Your task to perform on an android device: Open Google Chrome and open the bookmarks view Image 0: 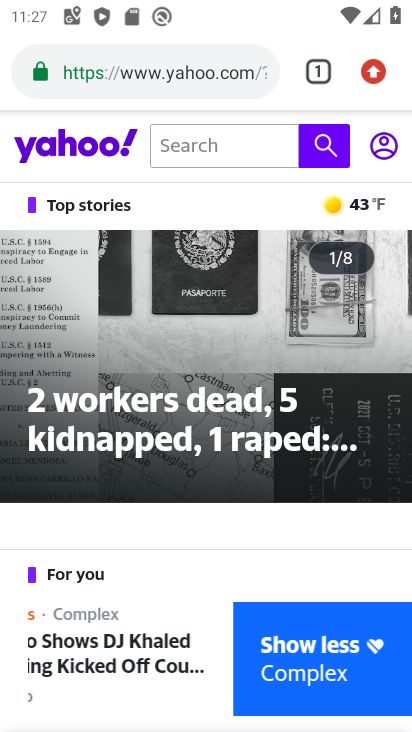
Step 0: click (369, 74)
Your task to perform on an android device: Open Google Chrome and open the bookmarks view Image 1: 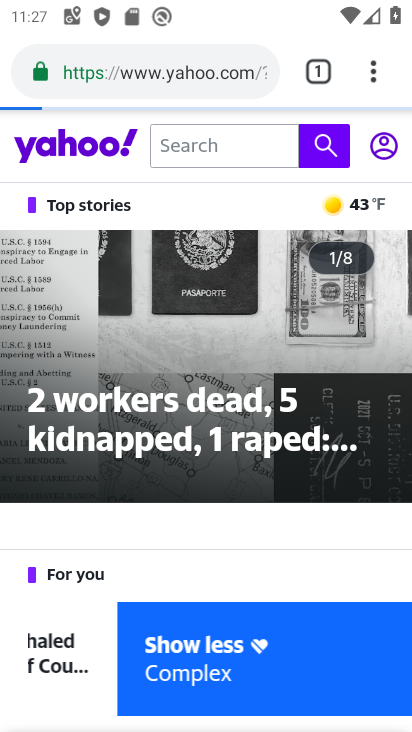
Step 1: task complete